Your task to perform on an android device: Set the phone to "Do not disturb". Image 0: 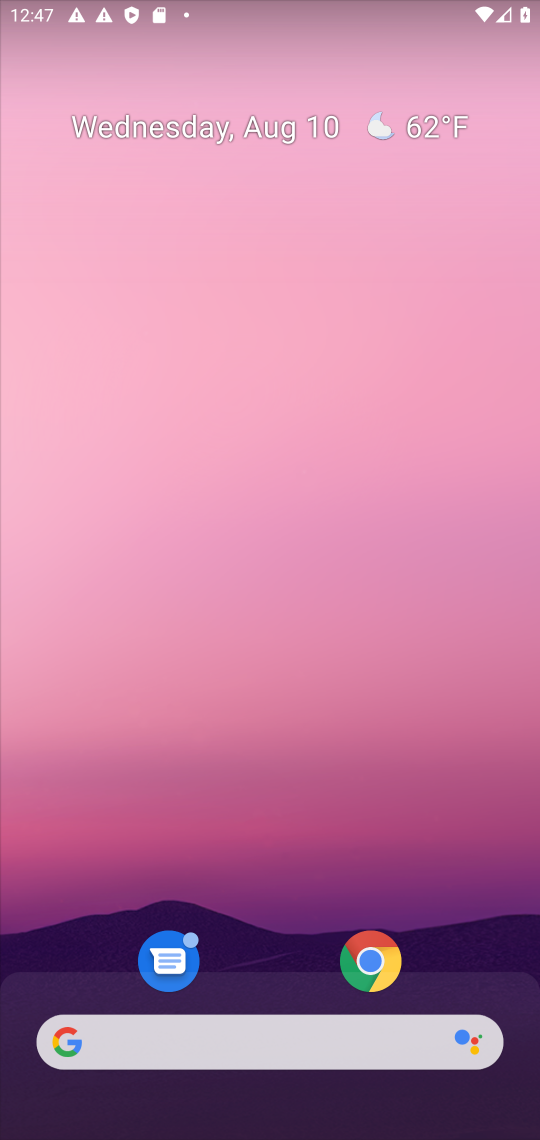
Step 0: drag from (263, 968) to (252, 218)
Your task to perform on an android device: Set the phone to "Do not disturb". Image 1: 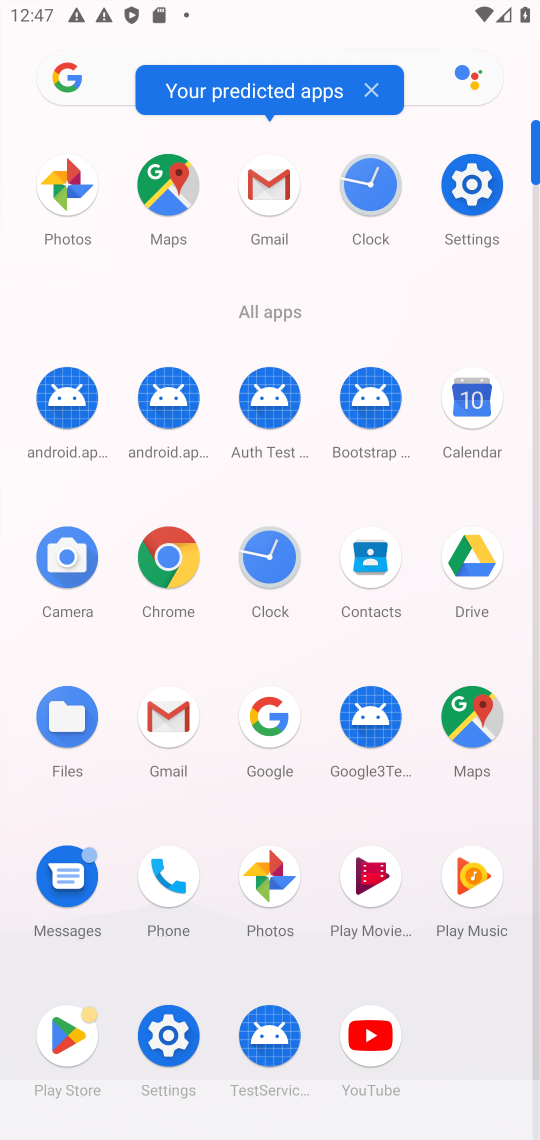
Step 1: click (462, 183)
Your task to perform on an android device: Set the phone to "Do not disturb". Image 2: 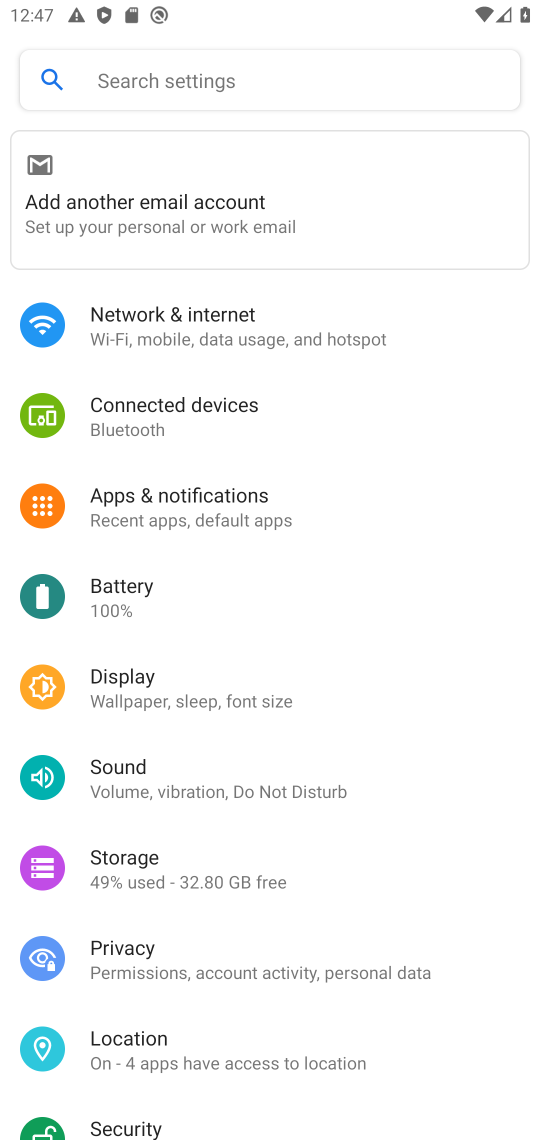
Step 2: click (118, 770)
Your task to perform on an android device: Set the phone to "Do not disturb". Image 3: 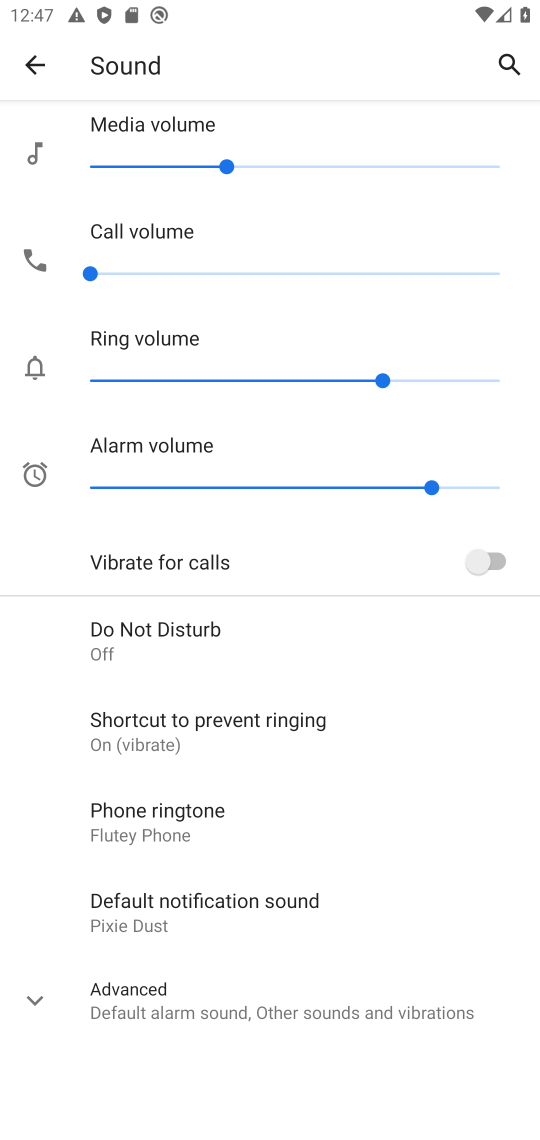
Step 3: click (164, 639)
Your task to perform on an android device: Set the phone to "Do not disturb". Image 4: 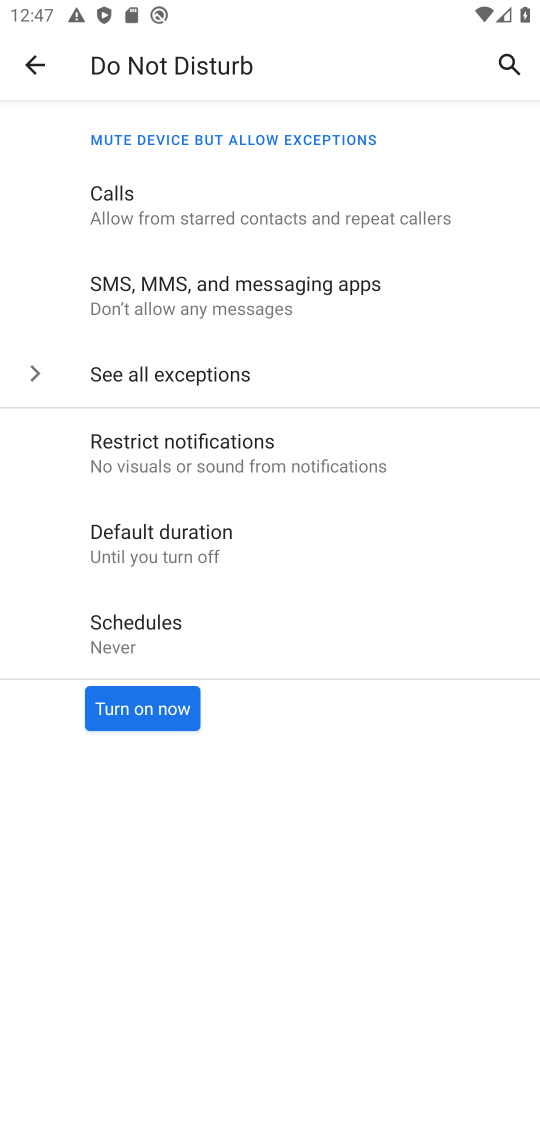
Step 4: click (149, 715)
Your task to perform on an android device: Set the phone to "Do not disturb". Image 5: 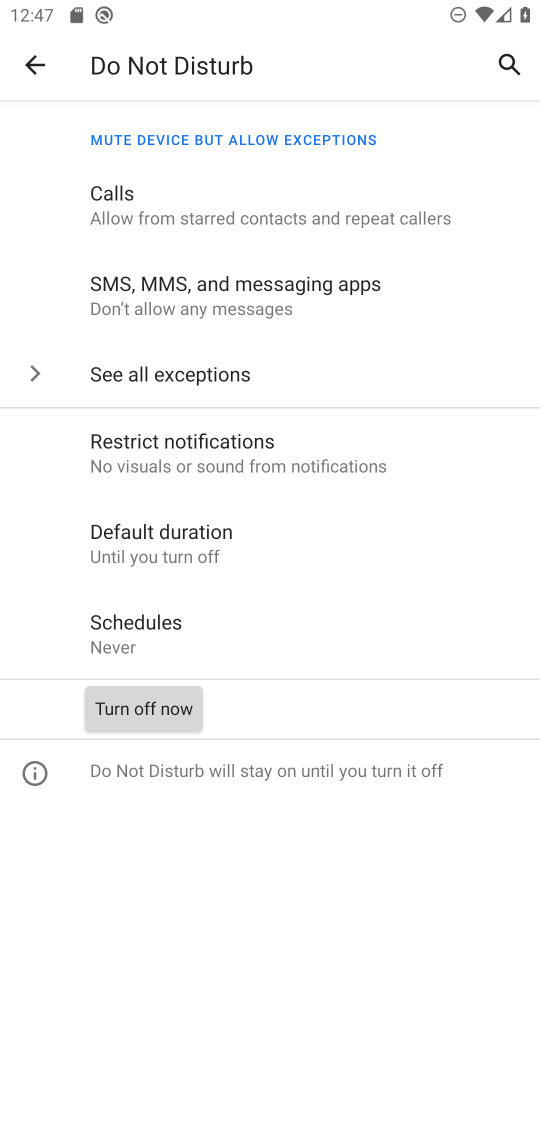
Step 5: task complete